Your task to perform on an android device: Open sound settings Image 0: 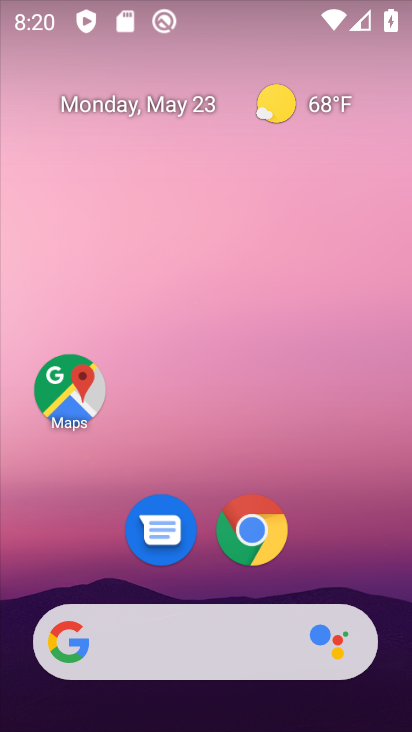
Step 0: drag from (59, 588) to (236, 95)
Your task to perform on an android device: Open sound settings Image 1: 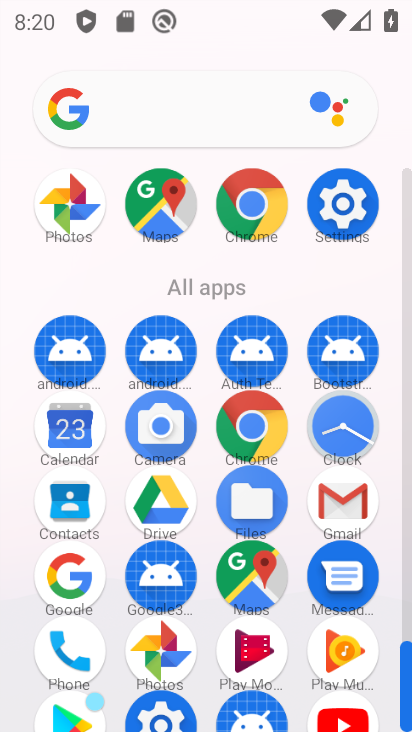
Step 1: drag from (217, 459) to (346, 122)
Your task to perform on an android device: Open sound settings Image 2: 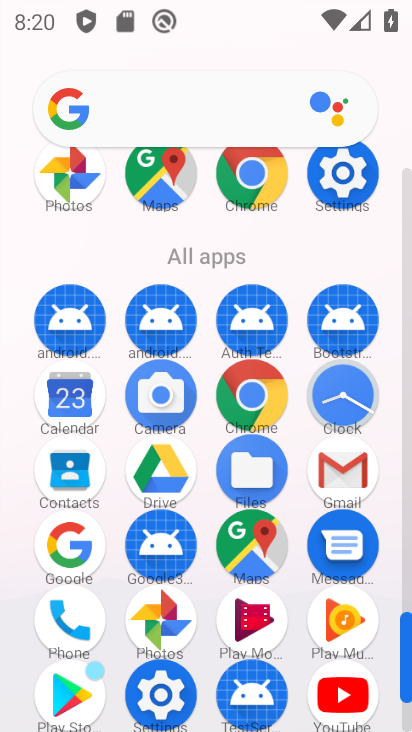
Step 2: click (162, 694)
Your task to perform on an android device: Open sound settings Image 3: 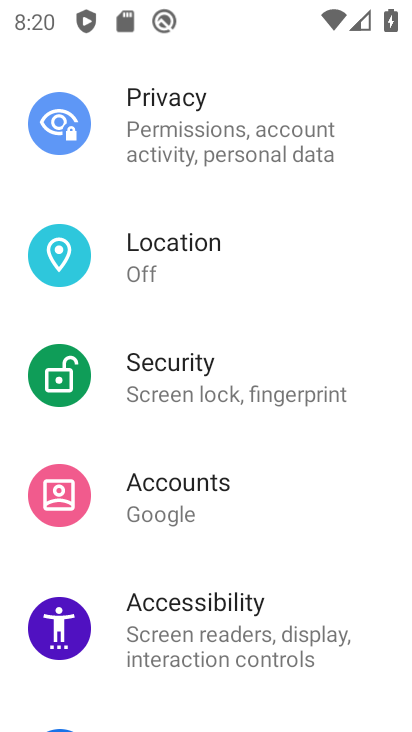
Step 3: drag from (259, 235) to (248, 730)
Your task to perform on an android device: Open sound settings Image 4: 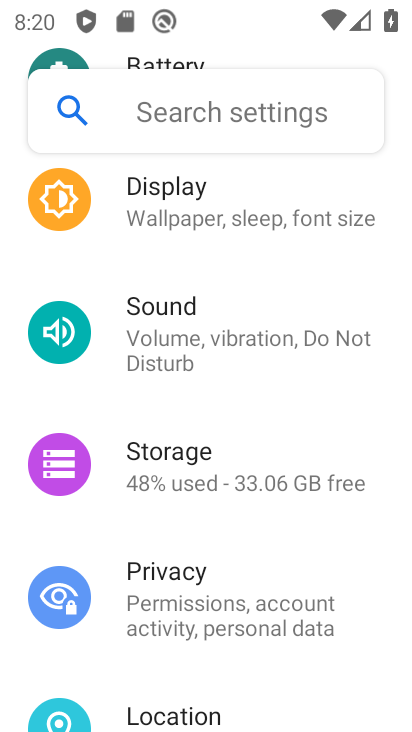
Step 4: click (184, 361)
Your task to perform on an android device: Open sound settings Image 5: 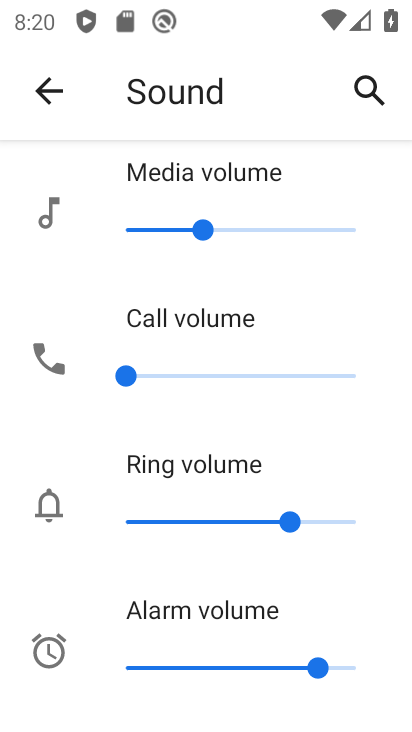
Step 5: task complete